Your task to perform on an android device: install app "Booking.com: Hotels and more" Image 0: 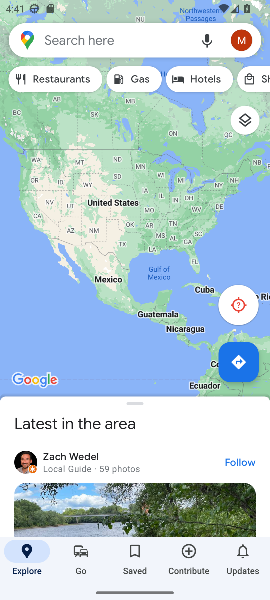
Step 0: press home button
Your task to perform on an android device: install app "Booking.com: Hotels and more" Image 1: 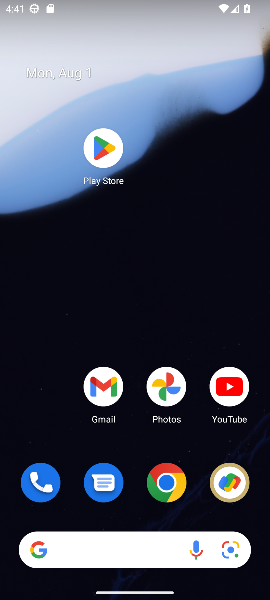
Step 1: click (111, 157)
Your task to perform on an android device: install app "Booking.com: Hotels and more" Image 2: 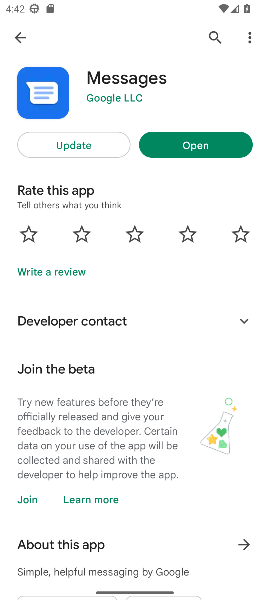
Step 2: click (213, 33)
Your task to perform on an android device: install app "Booking.com: Hotels and more" Image 3: 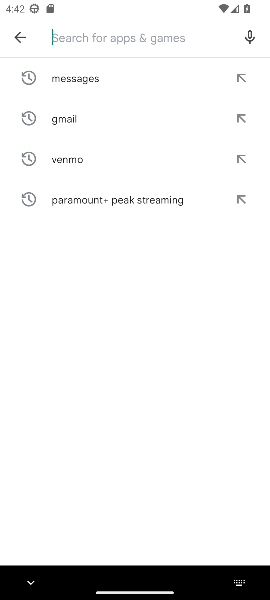
Step 3: type "Booking.com: Hotels and more"
Your task to perform on an android device: install app "Booking.com: Hotels and more" Image 4: 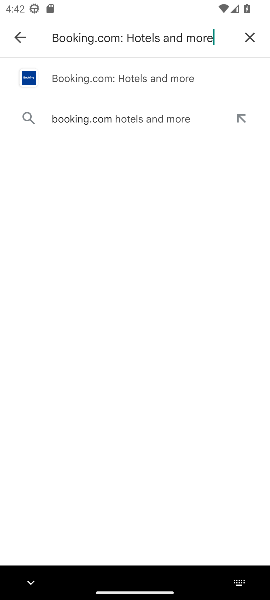
Step 4: click (116, 70)
Your task to perform on an android device: install app "Booking.com: Hotels and more" Image 5: 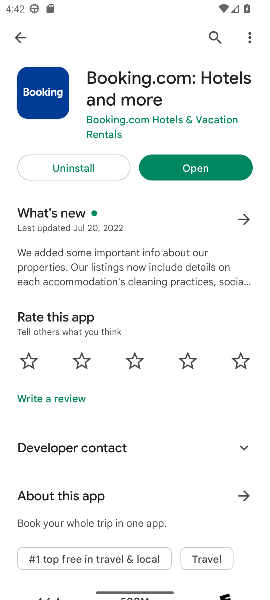
Step 5: task complete